Your task to perform on an android device: turn on javascript in the chrome app Image 0: 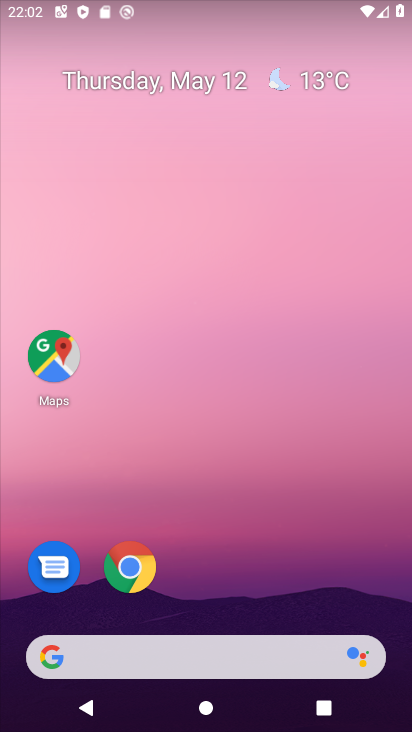
Step 0: click (126, 561)
Your task to perform on an android device: turn on javascript in the chrome app Image 1: 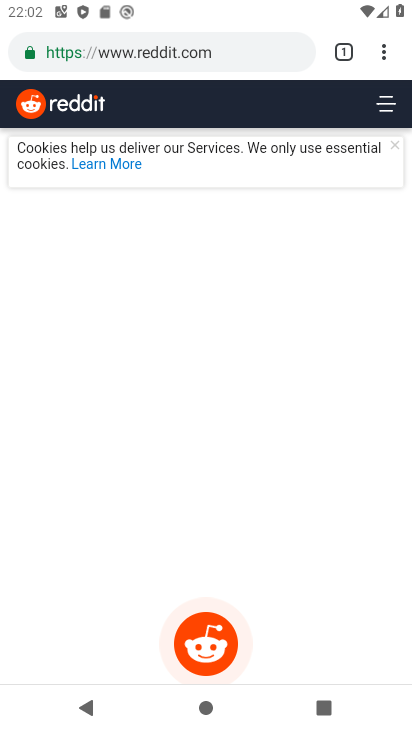
Step 1: click (380, 48)
Your task to perform on an android device: turn on javascript in the chrome app Image 2: 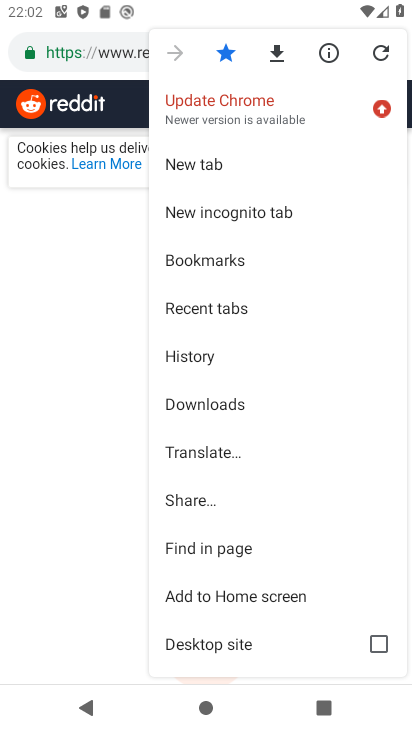
Step 2: drag from (266, 632) to (258, 133)
Your task to perform on an android device: turn on javascript in the chrome app Image 3: 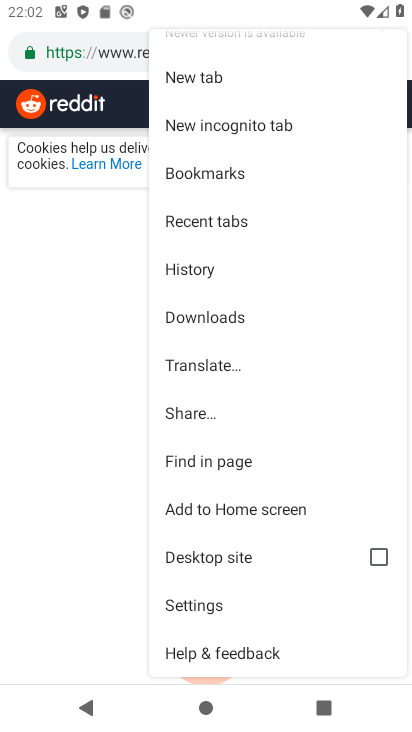
Step 3: click (229, 606)
Your task to perform on an android device: turn on javascript in the chrome app Image 4: 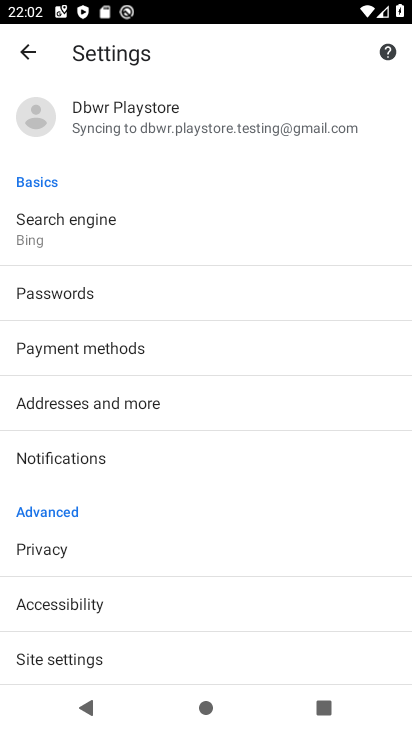
Step 4: drag from (179, 639) to (190, 147)
Your task to perform on an android device: turn on javascript in the chrome app Image 5: 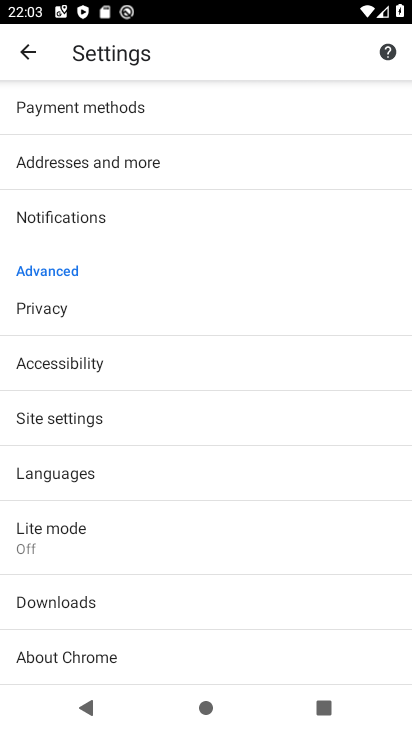
Step 5: click (117, 413)
Your task to perform on an android device: turn on javascript in the chrome app Image 6: 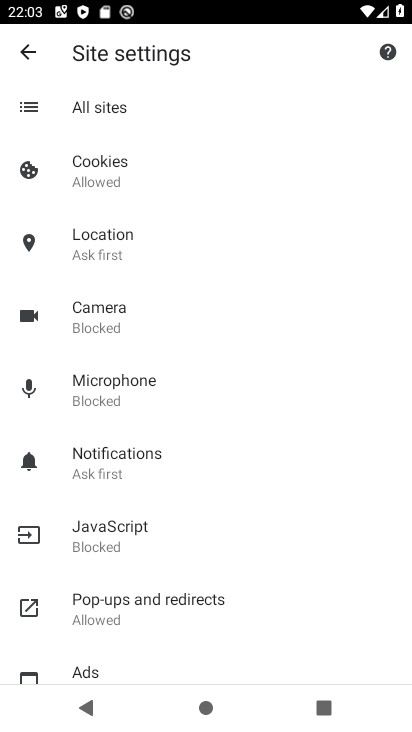
Step 6: click (152, 536)
Your task to perform on an android device: turn on javascript in the chrome app Image 7: 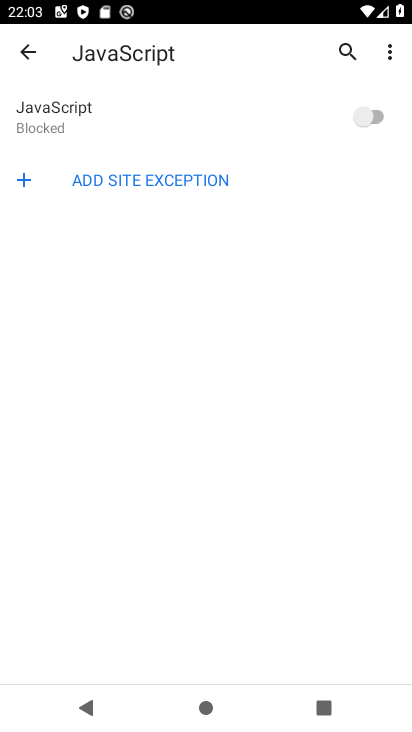
Step 7: click (371, 112)
Your task to perform on an android device: turn on javascript in the chrome app Image 8: 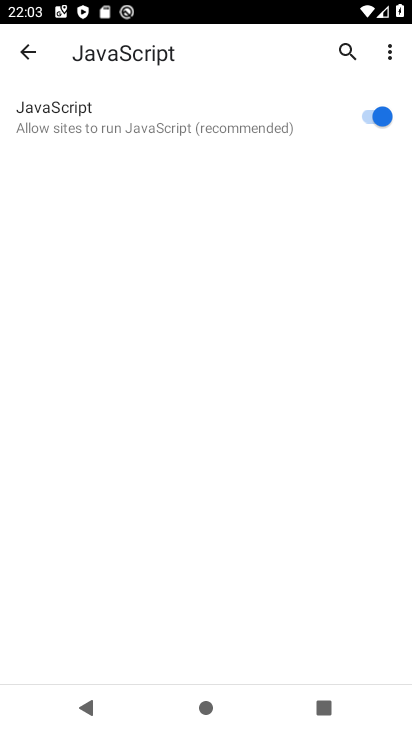
Step 8: task complete